Your task to perform on an android device: Go to Amazon Image 0: 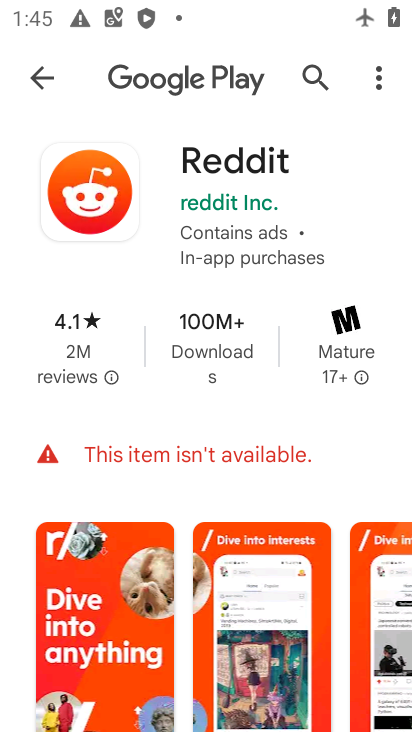
Step 0: press home button
Your task to perform on an android device: Go to Amazon Image 1: 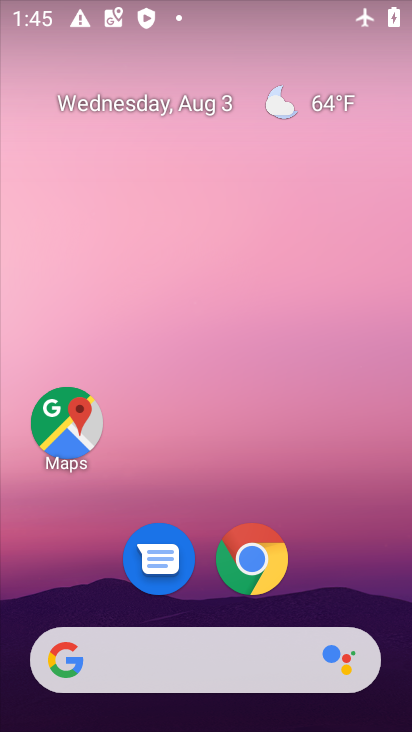
Step 1: click (251, 564)
Your task to perform on an android device: Go to Amazon Image 2: 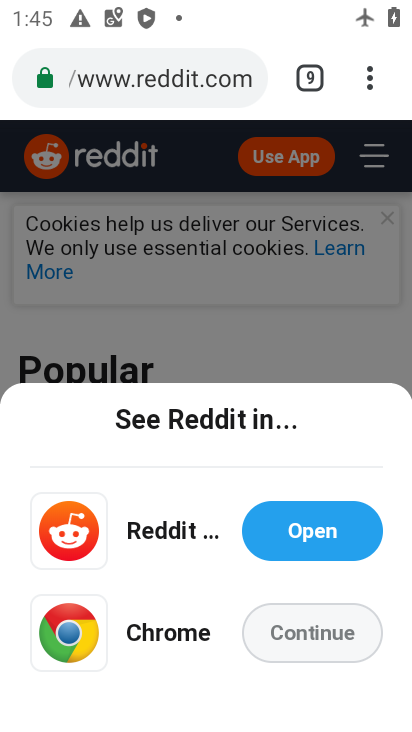
Step 2: click (369, 86)
Your task to perform on an android device: Go to Amazon Image 3: 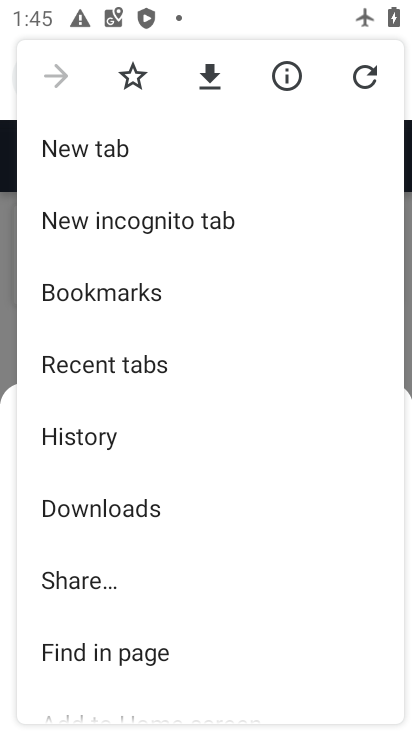
Step 3: click (107, 144)
Your task to perform on an android device: Go to Amazon Image 4: 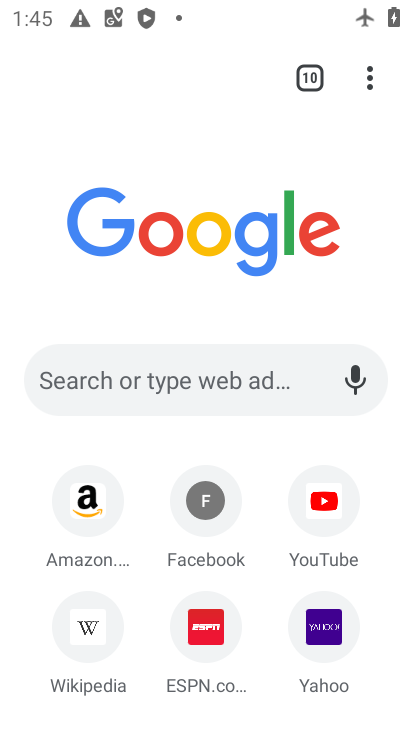
Step 4: click (93, 508)
Your task to perform on an android device: Go to Amazon Image 5: 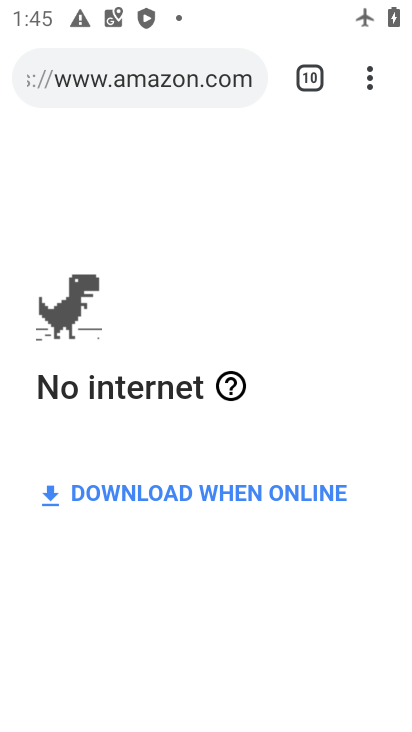
Step 5: task complete